Your task to perform on an android device: Open the phone app and click the voicemail tab. Image 0: 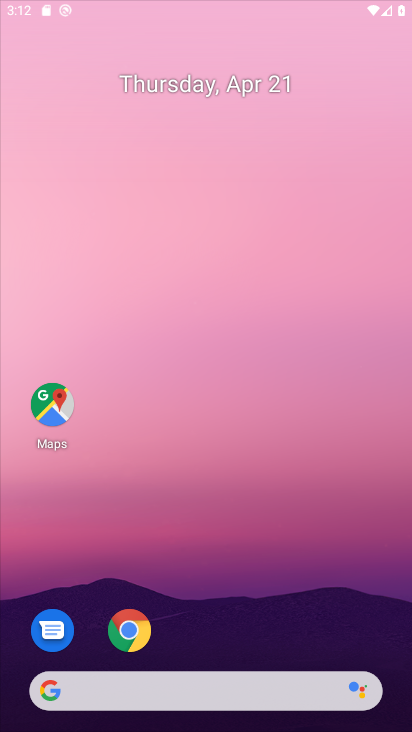
Step 0: click (257, 132)
Your task to perform on an android device: Open the phone app and click the voicemail tab. Image 1: 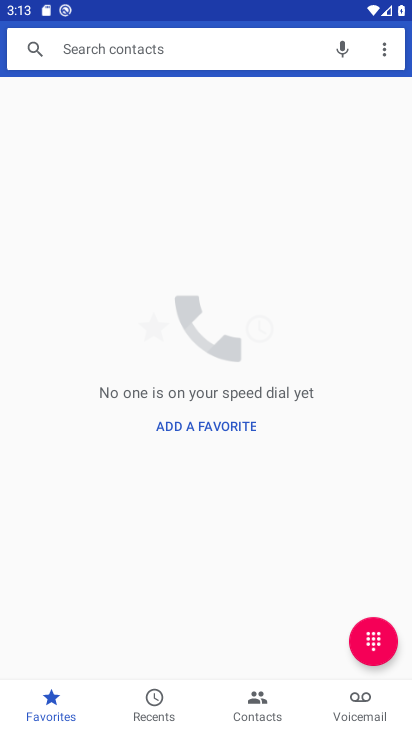
Step 1: press home button
Your task to perform on an android device: Open the phone app and click the voicemail tab. Image 2: 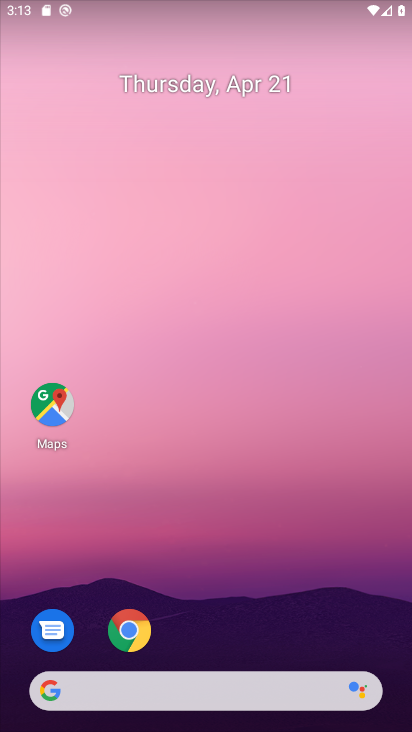
Step 2: drag from (161, 594) to (226, 84)
Your task to perform on an android device: Open the phone app and click the voicemail tab. Image 3: 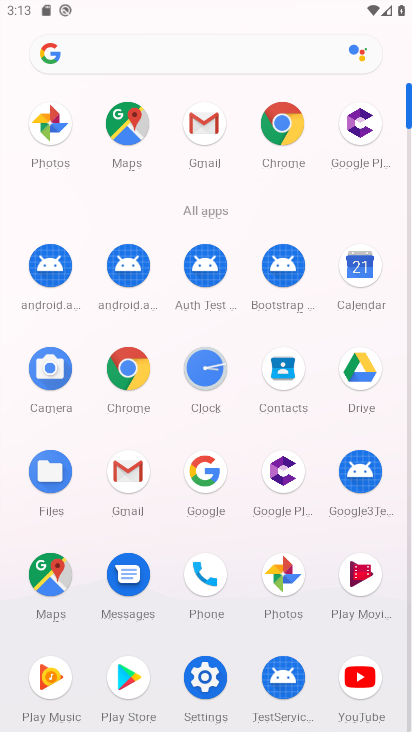
Step 3: click (214, 567)
Your task to perform on an android device: Open the phone app and click the voicemail tab. Image 4: 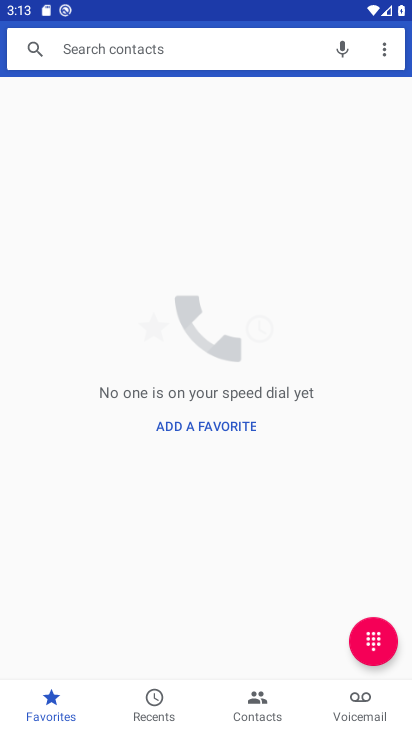
Step 4: drag from (236, 608) to (212, 338)
Your task to perform on an android device: Open the phone app and click the voicemail tab. Image 5: 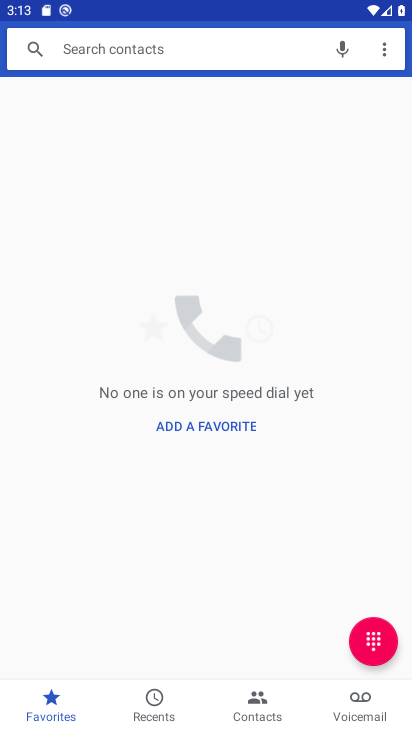
Step 5: click (361, 706)
Your task to perform on an android device: Open the phone app and click the voicemail tab. Image 6: 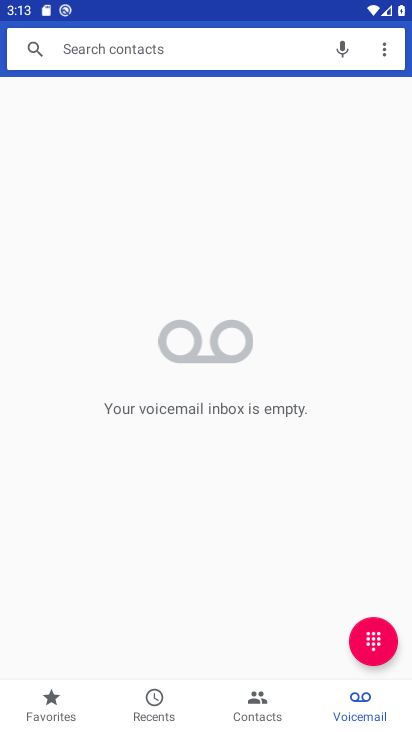
Step 6: drag from (223, 607) to (352, 144)
Your task to perform on an android device: Open the phone app and click the voicemail tab. Image 7: 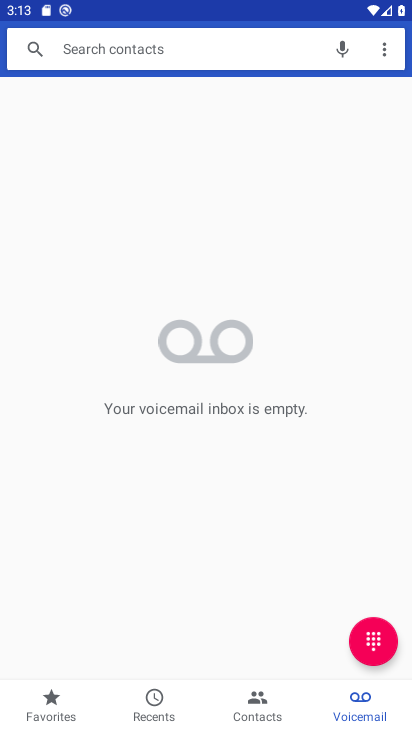
Step 7: drag from (204, 543) to (299, 274)
Your task to perform on an android device: Open the phone app and click the voicemail tab. Image 8: 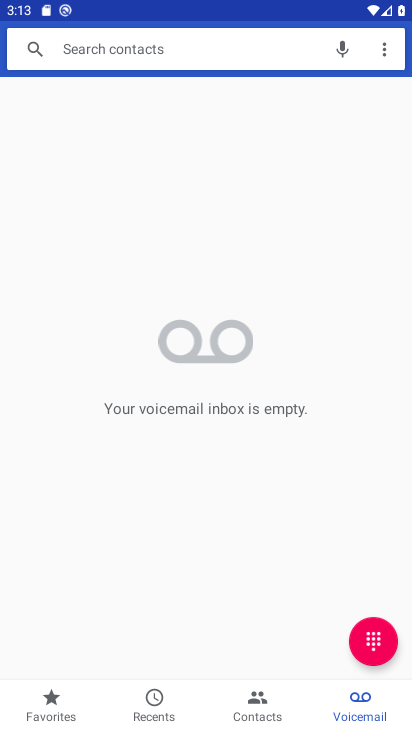
Step 8: click (351, 710)
Your task to perform on an android device: Open the phone app and click the voicemail tab. Image 9: 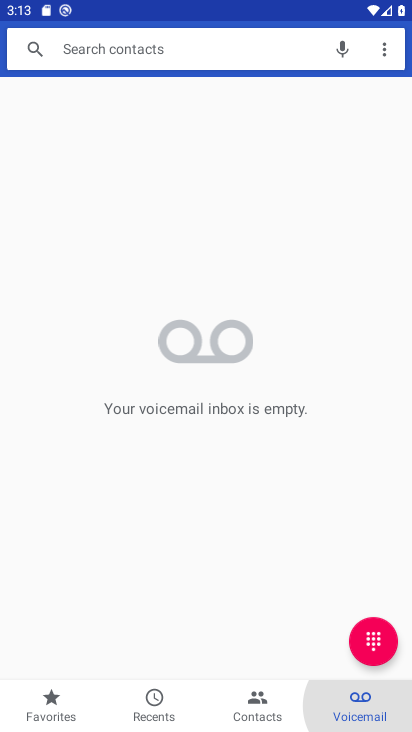
Step 9: drag from (154, 655) to (299, 285)
Your task to perform on an android device: Open the phone app and click the voicemail tab. Image 10: 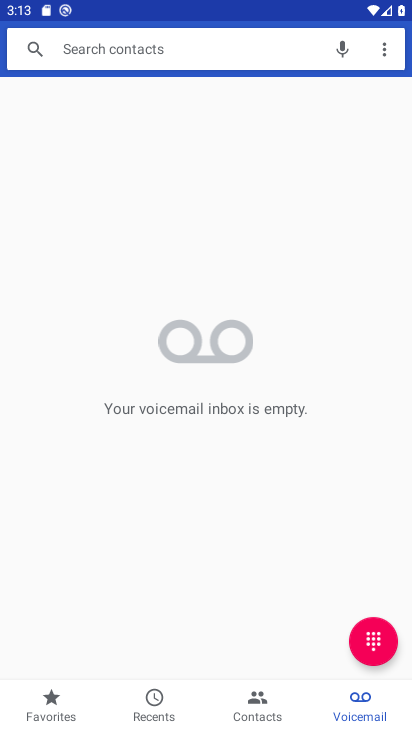
Step 10: click (363, 714)
Your task to perform on an android device: Open the phone app and click the voicemail tab. Image 11: 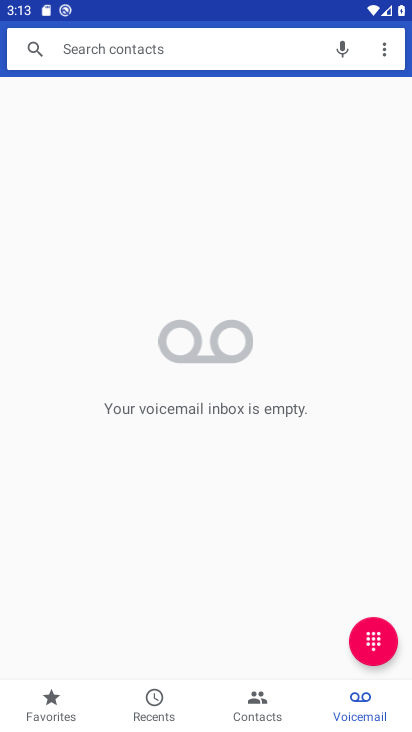
Step 11: click (364, 712)
Your task to perform on an android device: Open the phone app and click the voicemail tab. Image 12: 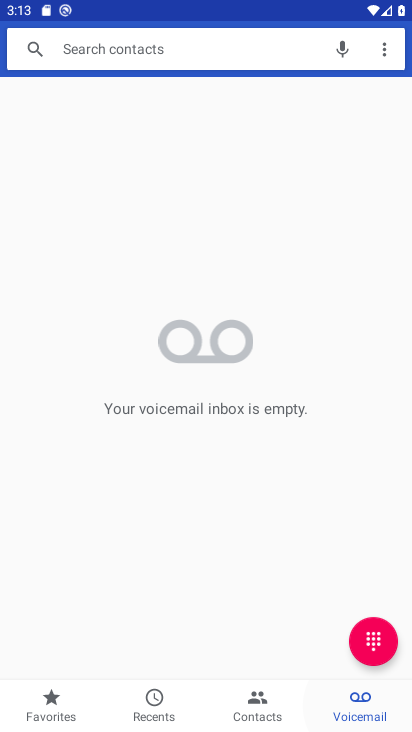
Step 12: task complete